Your task to perform on an android device: delete browsing data in the chrome app Image 0: 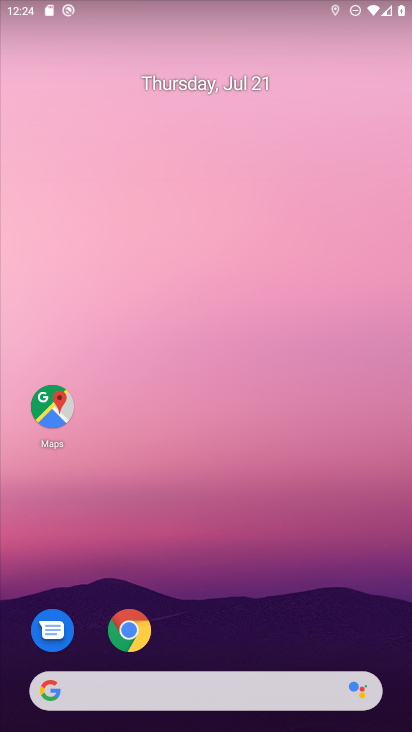
Step 0: drag from (192, 13) to (237, 8)
Your task to perform on an android device: delete browsing data in the chrome app Image 1: 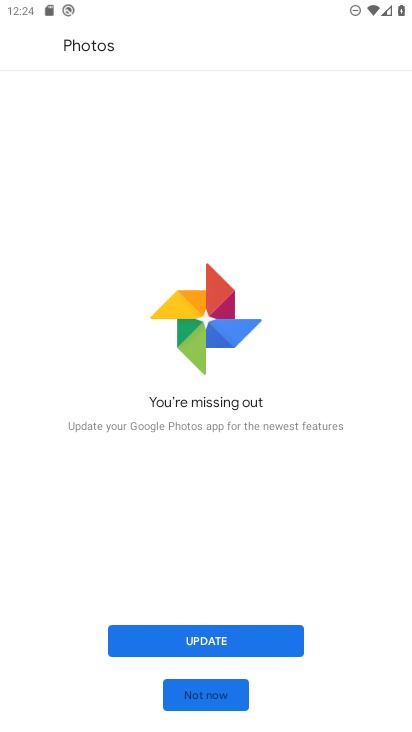
Step 1: press home button
Your task to perform on an android device: delete browsing data in the chrome app Image 2: 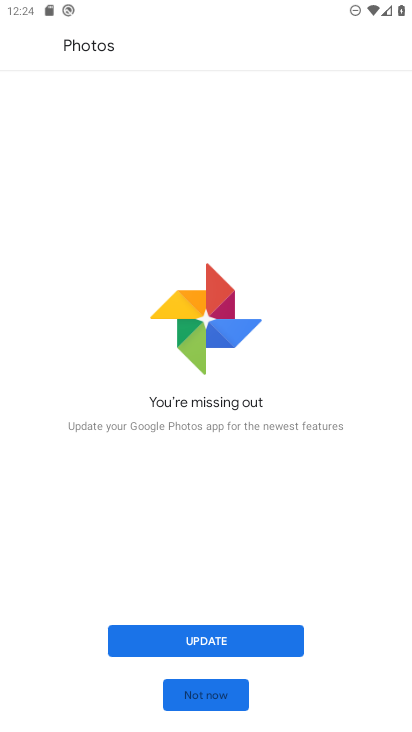
Step 2: press home button
Your task to perform on an android device: delete browsing data in the chrome app Image 3: 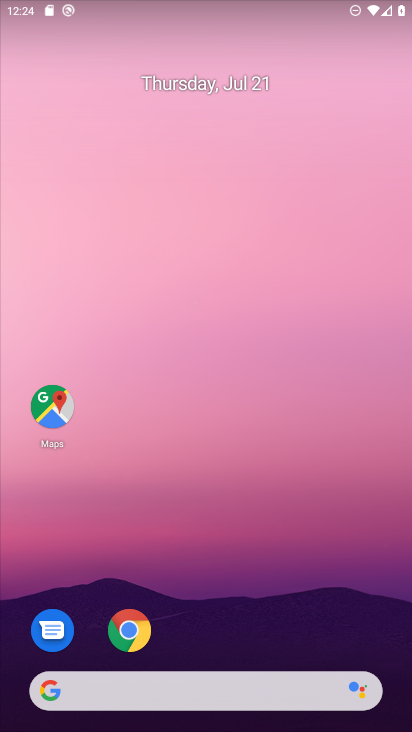
Step 3: drag from (201, 648) to (269, 69)
Your task to perform on an android device: delete browsing data in the chrome app Image 4: 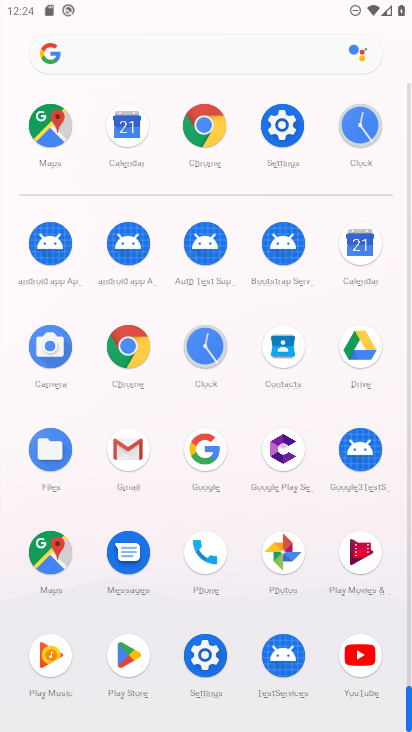
Step 4: click (123, 336)
Your task to perform on an android device: delete browsing data in the chrome app Image 5: 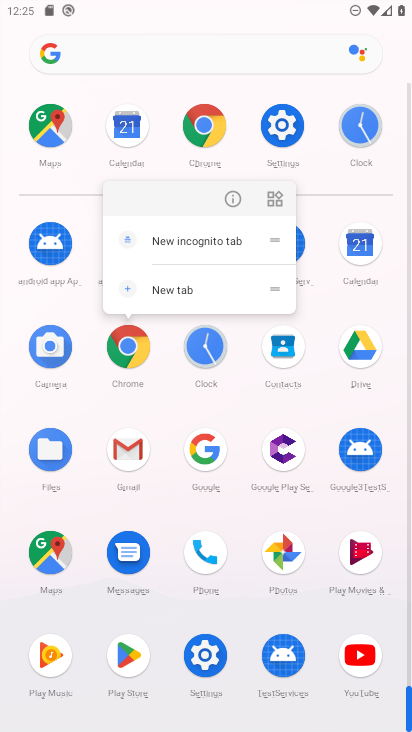
Step 5: click (234, 194)
Your task to perform on an android device: delete browsing data in the chrome app Image 6: 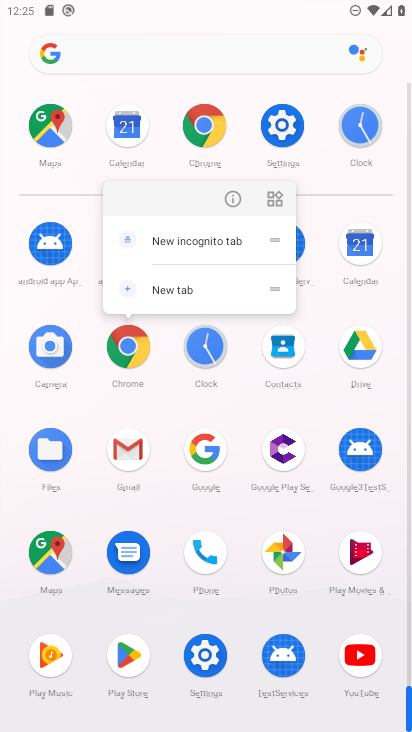
Step 6: click (236, 197)
Your task to perform on an android device: delete browsing data in the chrome app Image 7: 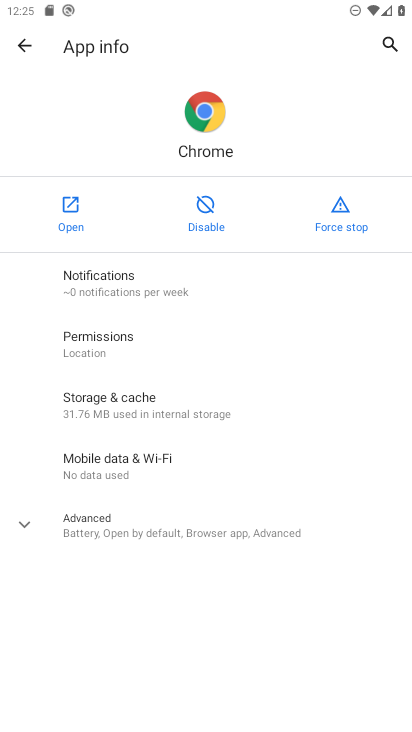
Step 7: click (63, 210)
Your task to perform on an android device: delete browsing data in the chrome app Image 8: 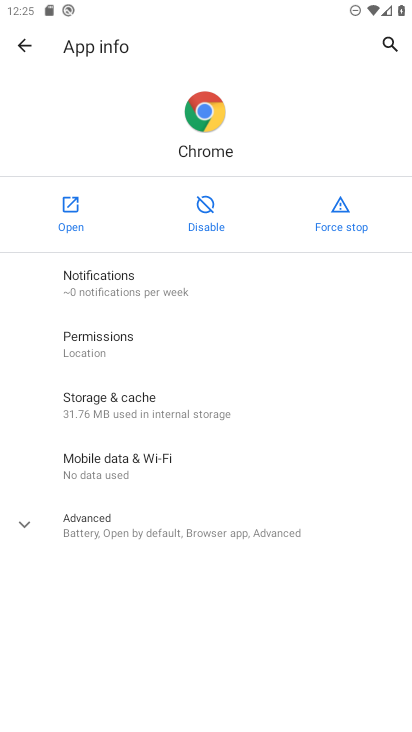
Step 8: click (63, 210)
Your task to perform on an android device: delete browsing data in the chrome app Image 9: 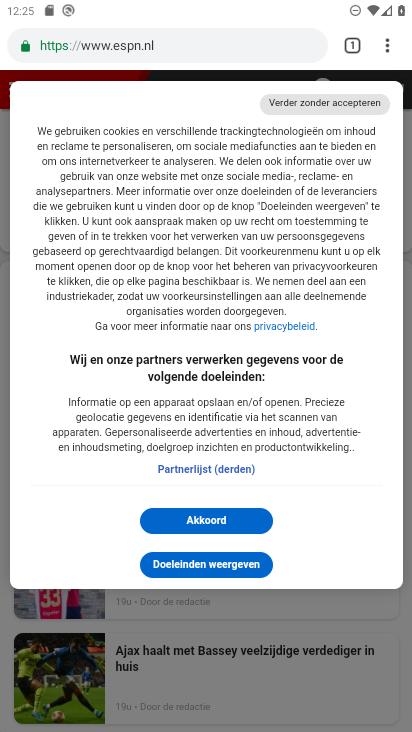
Step 9: drag from (386, 49) to (251, 550)
Your task to perform on an android device: delete browsing data in the chrome app Image 10: 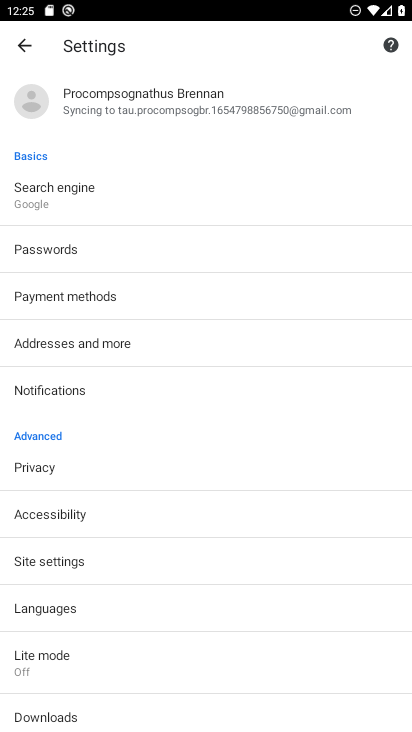
Step 10: click (19, 45)
Your task to perform on an android device: delete browsing data in the chrome app Image 11: 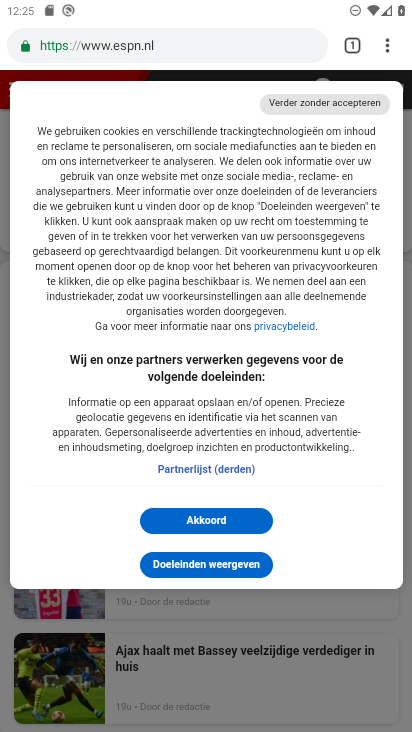
Step 11: drag from (377, 40) to (268, 260)
Your task to perform on an android device: delete browsing data in the chrome app Image 12: 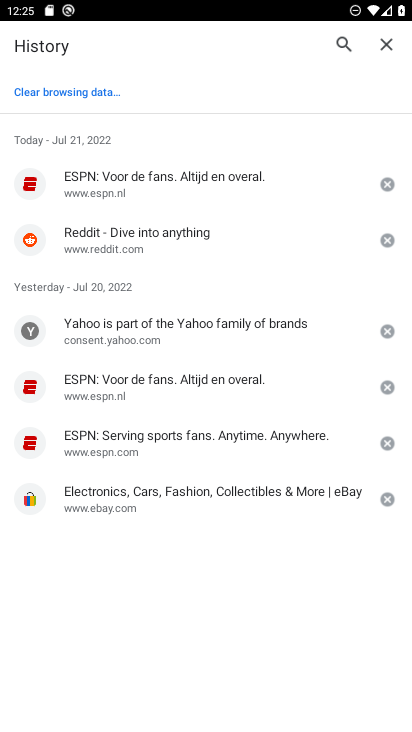
Step 12: click (42, 97)
Your task to perform on an android device: delete browsing data in the chrome app Image 13: 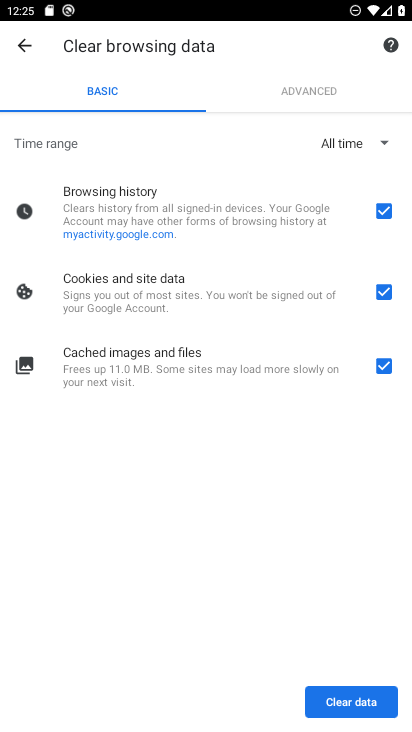
Step 13: click (347, 685)
Your task to perform on an android device: delete browsing data in the chrome app Image 14: 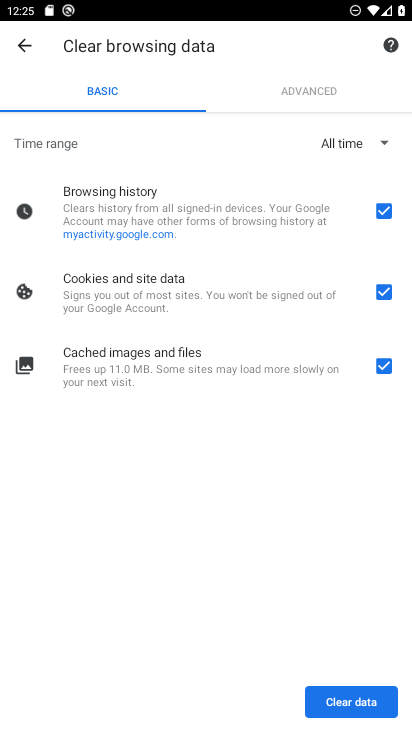
Step 14: click (345, 697)
Your task to perform on an android device: delete browsing data in the chrome app Image 15: 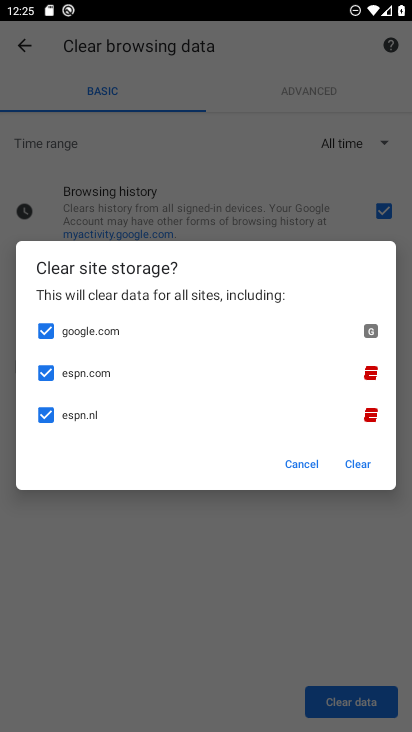
Step 15: click (351, 460)
Your task to perform on an android device: delete browsing data in the chrome app Image 16: 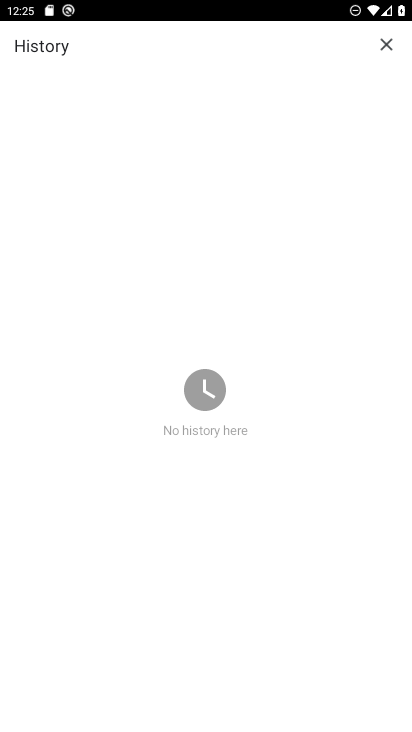
Step 16: task complete